Your task to perform on an android device: Go to Maps Image 0: 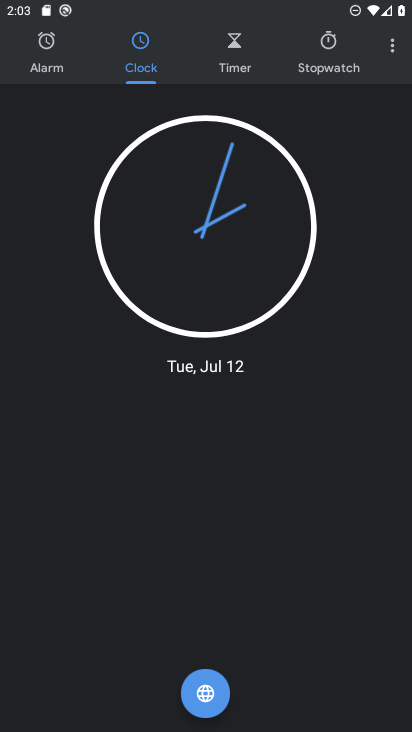
Step 0: press home button
Your task to perform on an android device: Go to Maps Image 1: 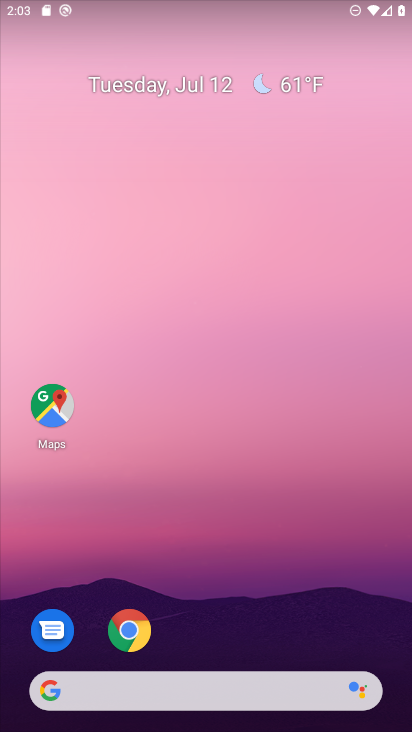
Step 1: click (69, 404)
Your task to perform on an android device: Go to Maps Image 2: 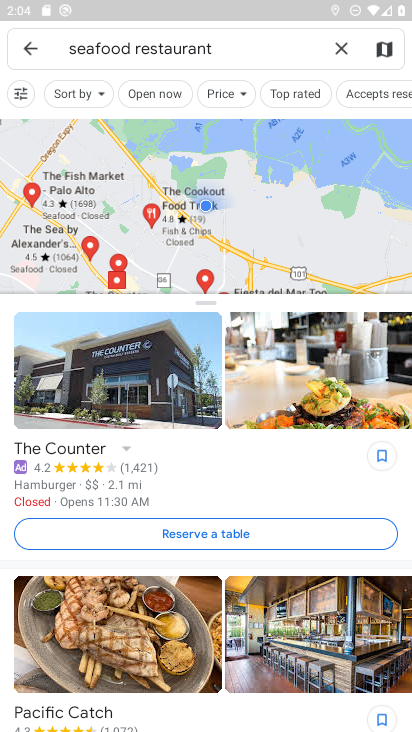
Step 2: task complete